Your task to perform on an android device: empty trash in google photos Image 0: 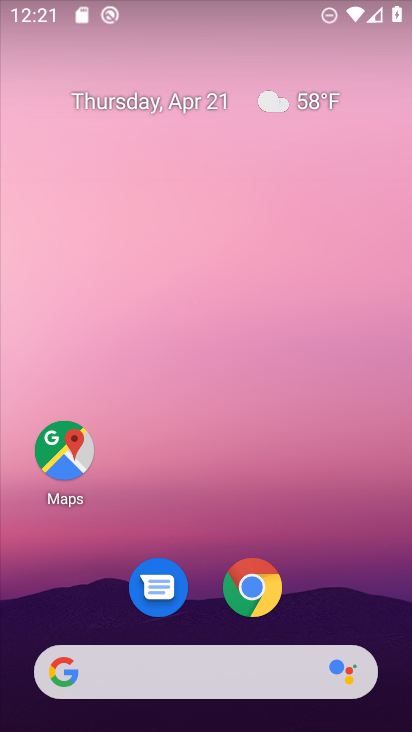
Step 0: click (386, 238)
Your task to perform on an android device: empty trash in google photos Image 1: 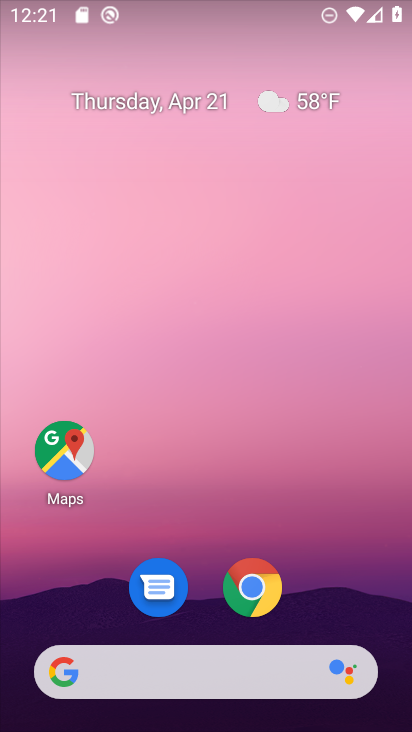
Step 1: drag from (207, 609) to (280, 31)
Your task to perform on an android device: empty trash in google photos Image 2: 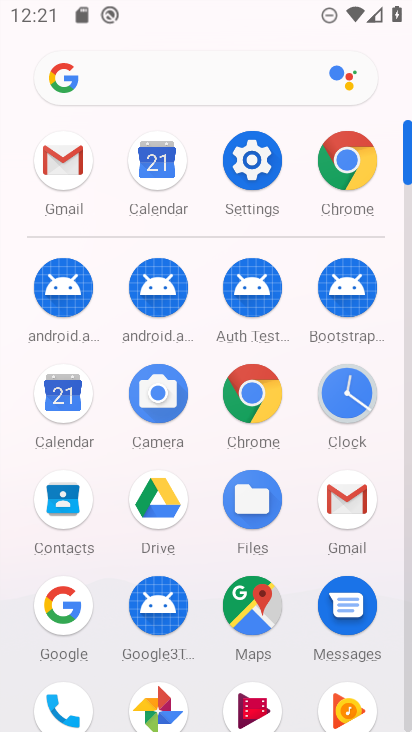
Step 2: drag from (212, 576) to (267, 256)
Your task to perform on an android device: empty trash in google photos Image 3: 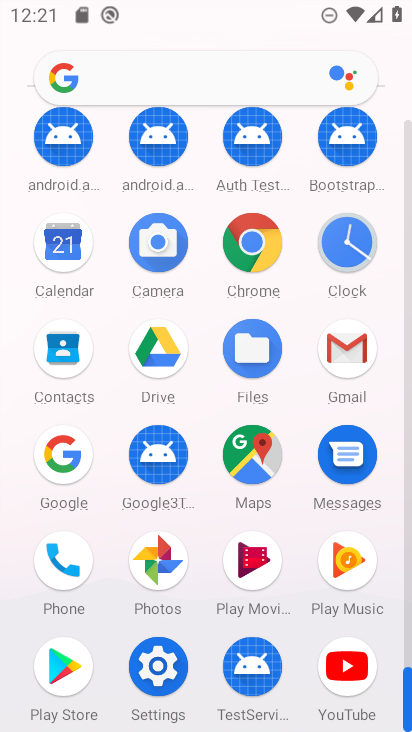
Step 3: click (157, 556)
Your task to perform on an android device: empty trash in google photos Image 4: 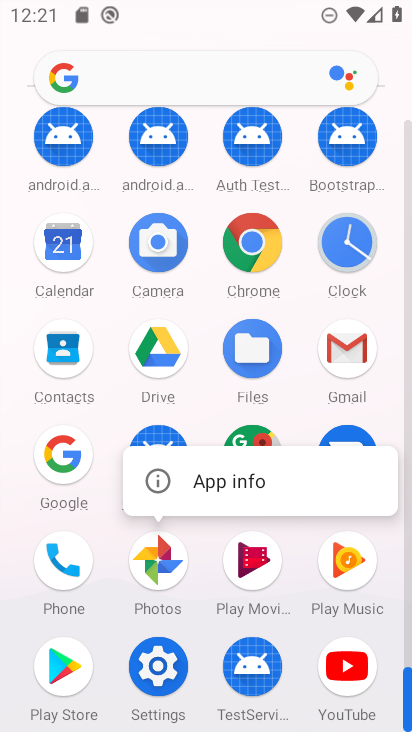
Step 4: click (166, 554)
Your task to perform on an android device: empty trash in google photos Image 5: 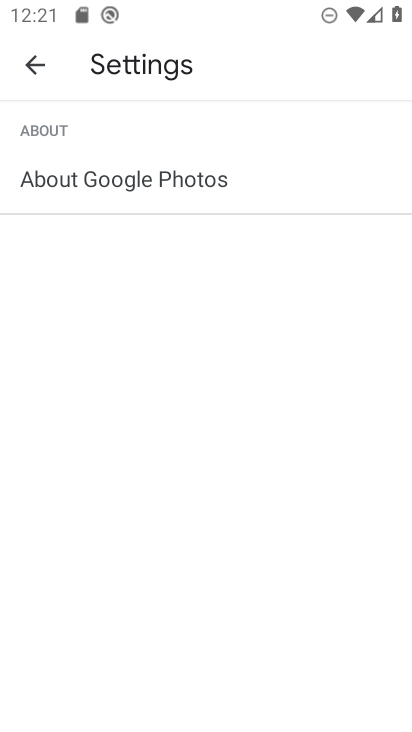
Step 5: click (24, 60)
Your task to perform on an android device: empty trash in google photos Image 6: 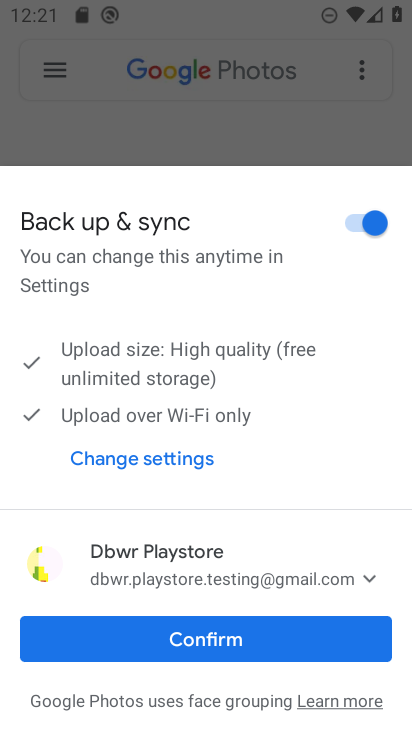
Step 6: click (227, 640)
Your task to perform on an android device: empty trash in google photos Image 7: 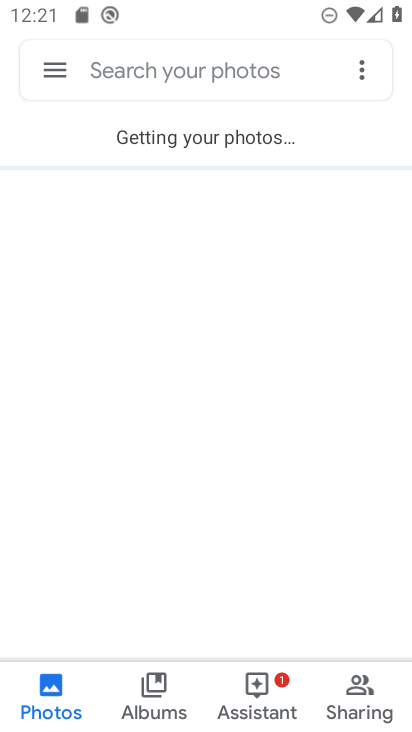
Step 7: click (48, 76)
Your task to perform on an android device: empty trash in google photos Image 8: 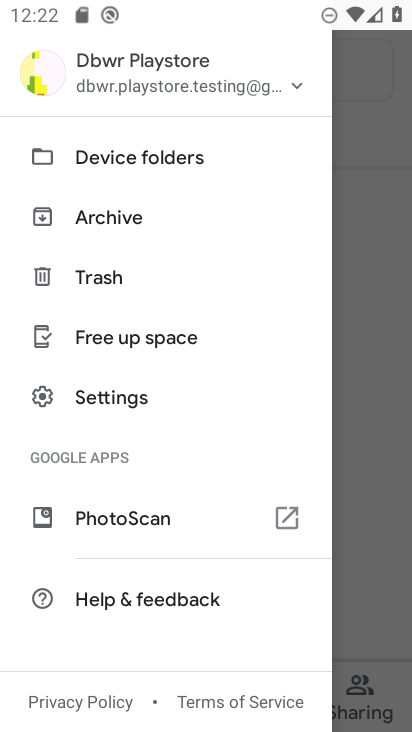
Step 8: click (119, 282)
Your task to perform on an android device: empty trash in google photos Image 9: 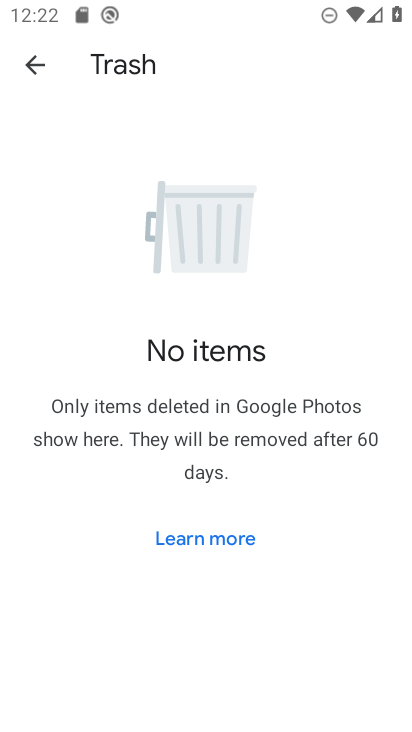
Step 9: task complete